Your task to perform on an android device: open a bookmark in the chrome app Image 0: 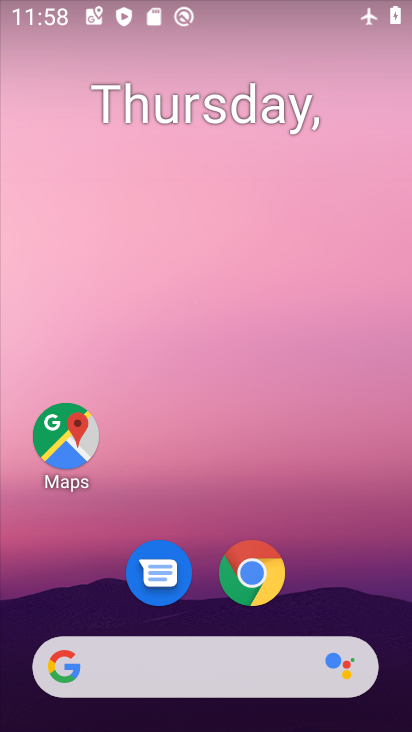
Step 0: click (252, 570)
Your task to perform on an android device: open a bookmark in the chrome app Image 1: 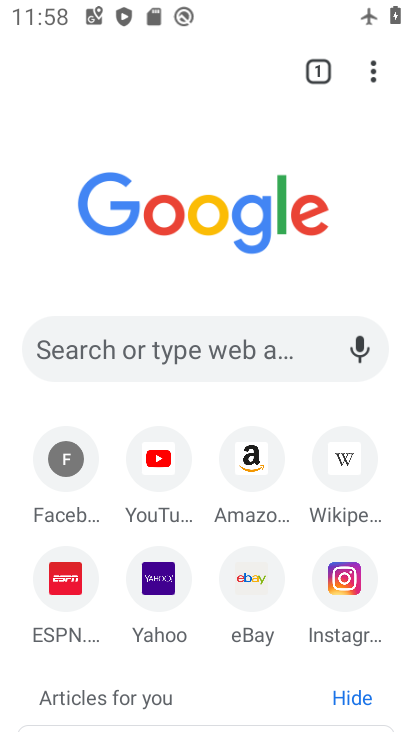
Step 1: click (367, 78)
Your task to perform on an android device: open a bookmark in the chrome app Image 2: 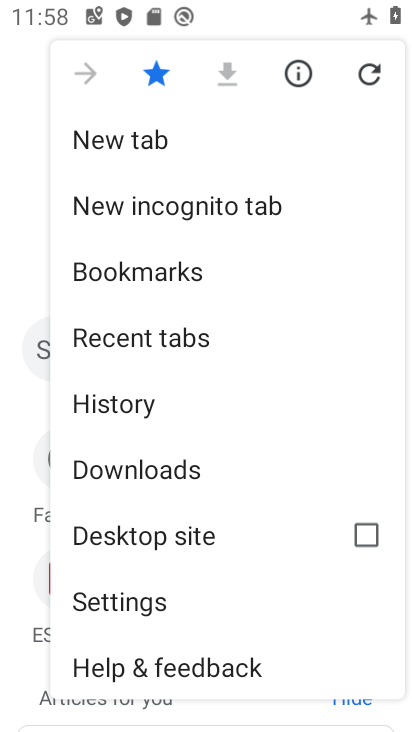
Step 2: click (215, 279)
Your task to perform on an android device: open a bookmark in the chrome app Image 3: 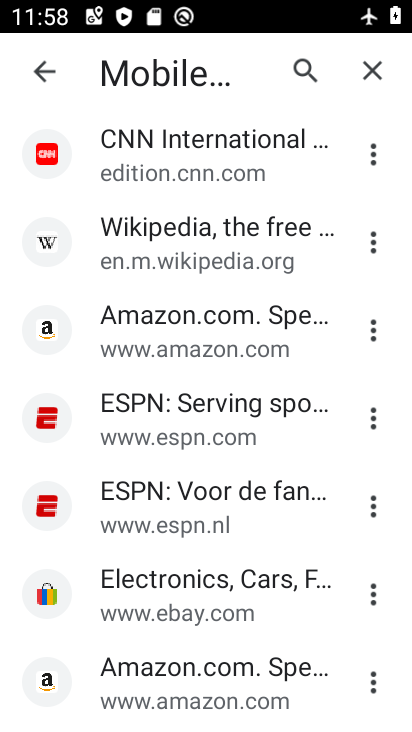
Step 3: click (194, 299)
Your task to perform on an android device: open a bookmark in the chrome app Image 4: 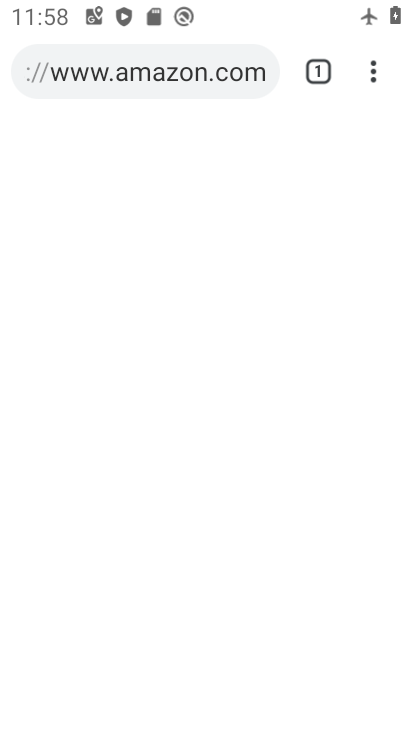
Step 4: click (189, 320)
Your task to perform on an android device: open a bookmark in the chrome app Image 5: 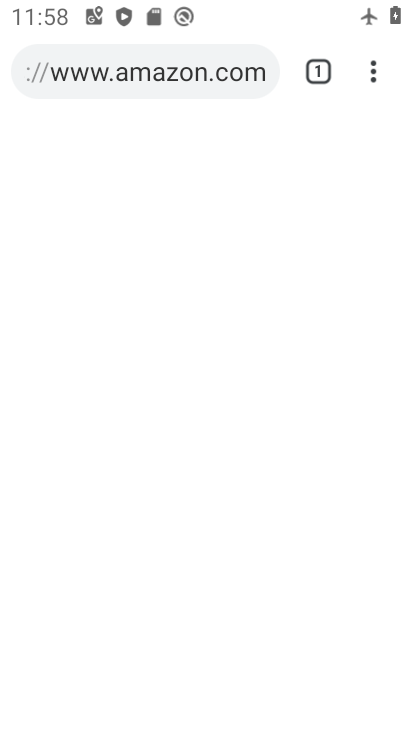
Step 5: click (189, 320)
Your task to perform on an android device: open a bookmark in the chrome app Image 6: 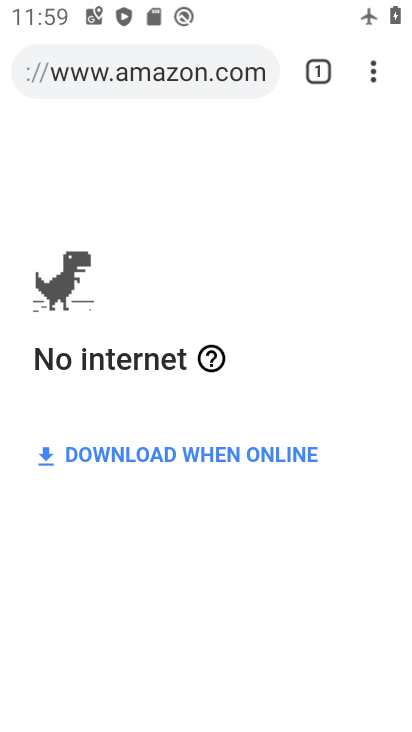
Step 6: task complete